Your task to perform on an android device: Open Wikipedia Image 0: 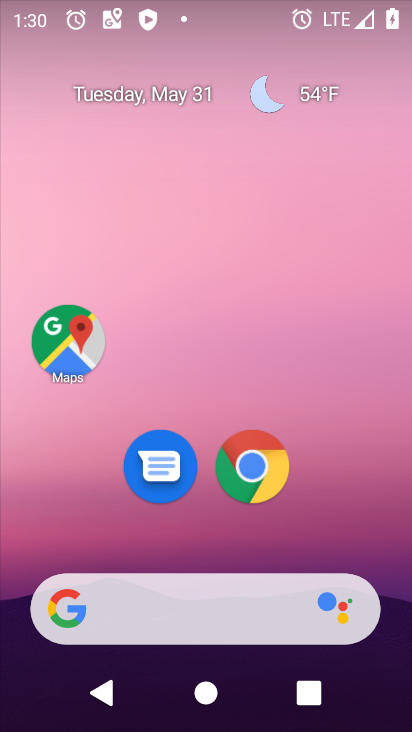
Step 0: press home button
Your task to perform on an android device: Open Wikipedia Image 1: 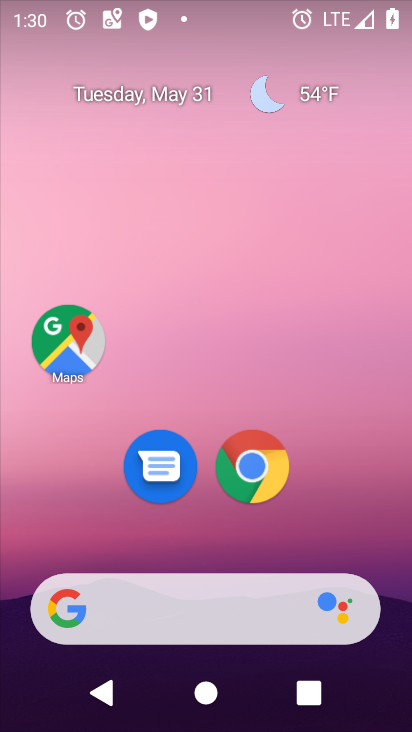
Step 1: click (248, 488)
Your task to perform on an android device: Open Wikipedia Image 2: 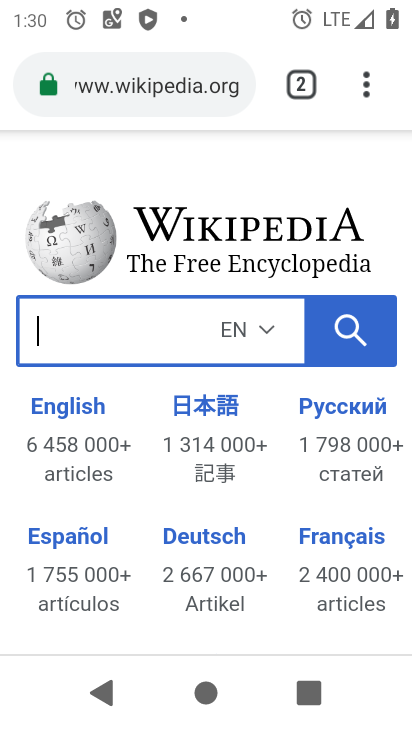
Step 2: task complete